Your task to perform on an android device: turn off smart reply in the gmail app Image 0: 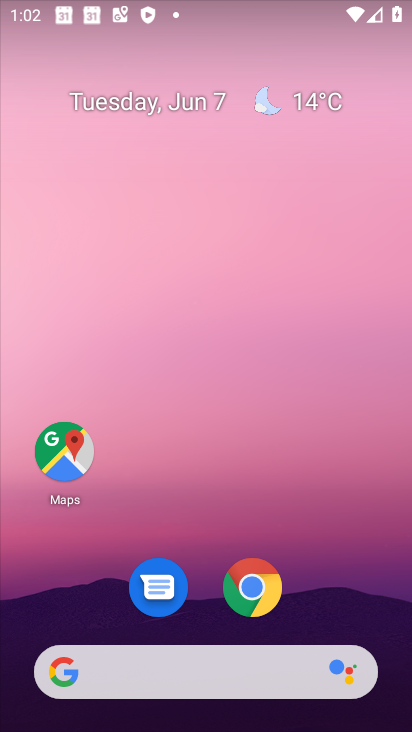
Step 0: drag from (223, 661) to (215, 214)
Your task to perform on an android device: turn off smart reply in the gmail app Image 1: 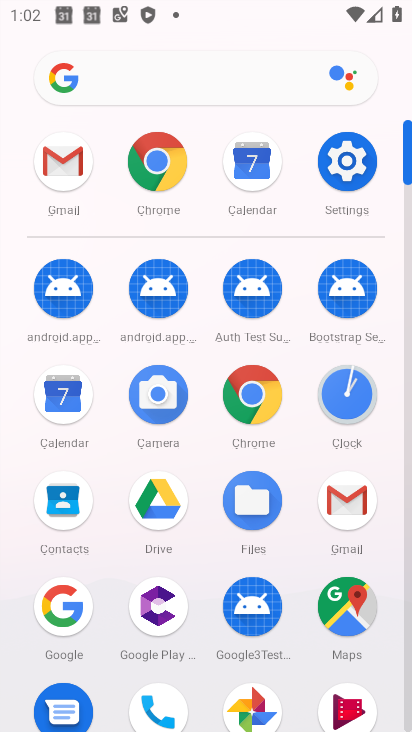
Step 1: click (345, 501)
Your task to perform on an android device: turn off smart reply in the gmail app Image 2: 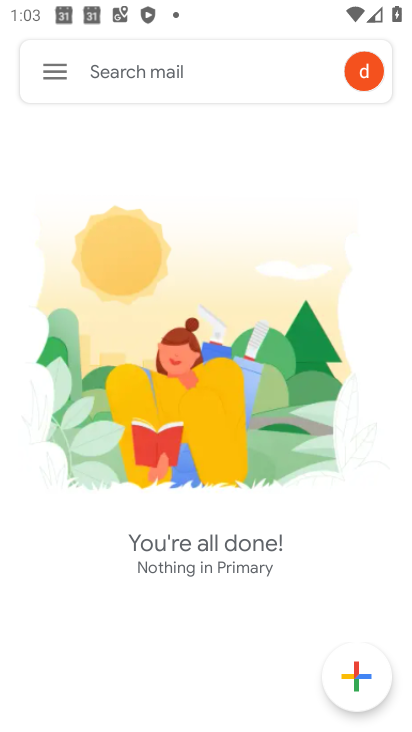
Step 2: click (48, 79)
Your task to perform on an android device: turn off smart reply in the gmail app Image 3: 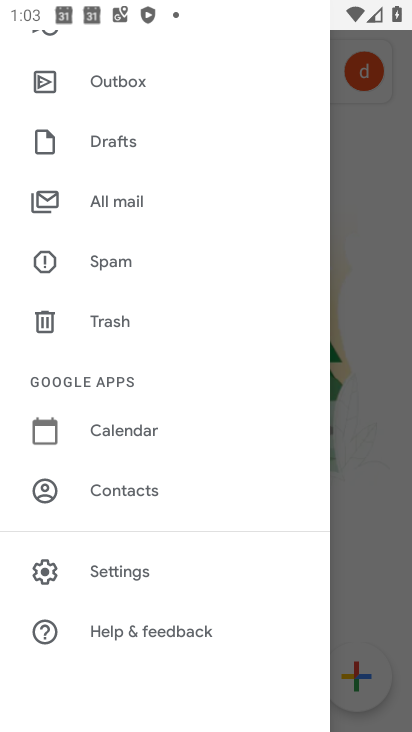
Step 3: click (134, 576)
Your task to perform on an android device: turn off smart reply in the gmail app Image 4: 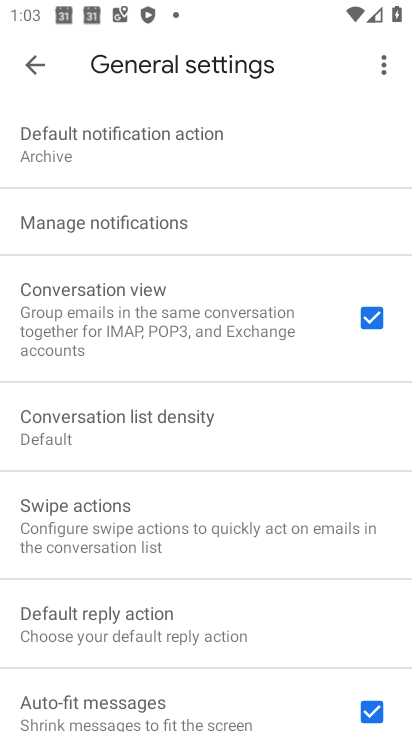
Step 4: click (31, 68)
Your task to perform on an android device: turn off smart reply in the gmail app Image 5: 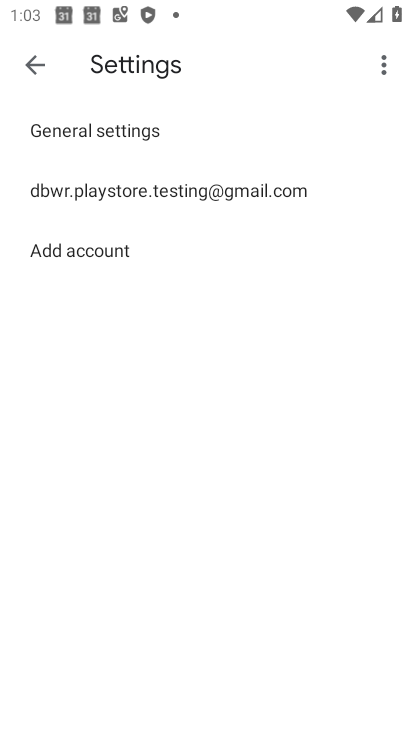
Step 5: click (138, 204)
Your task to perform on an android device: turn off smart reply in the gmail app Image 6: 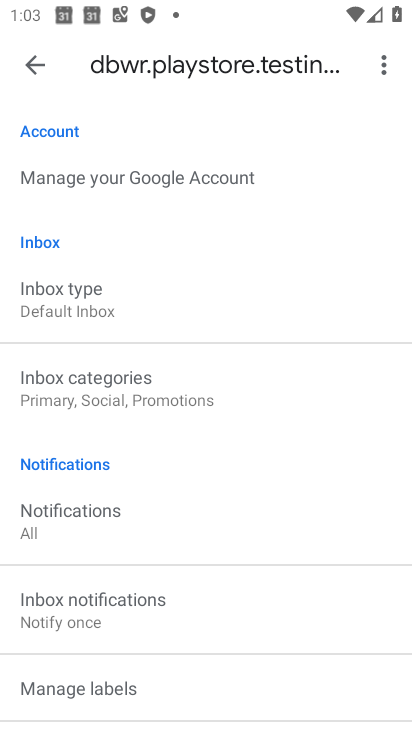
Step 6: drag from (132, 545) to (240, 0)
Your task to perform on an android device: turn off smart reply in the gmail app Image 7: 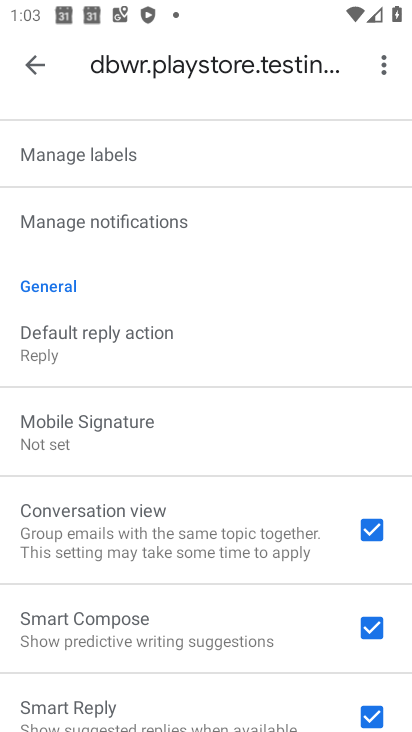
Step 7: drag from (156, 568) to (176, 376)
Your task to perform on an android device: turn off smart reply in the gmail app Image 8: 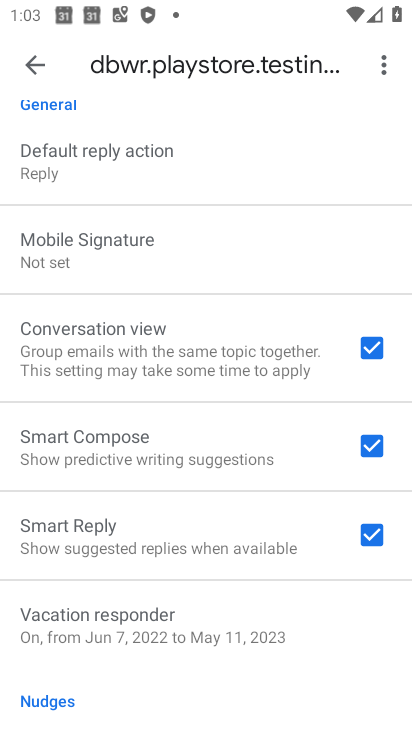
Step 8: click (367, 536)
Your task to perform on an android device: turn off smart reply in the gmail app Image 9: 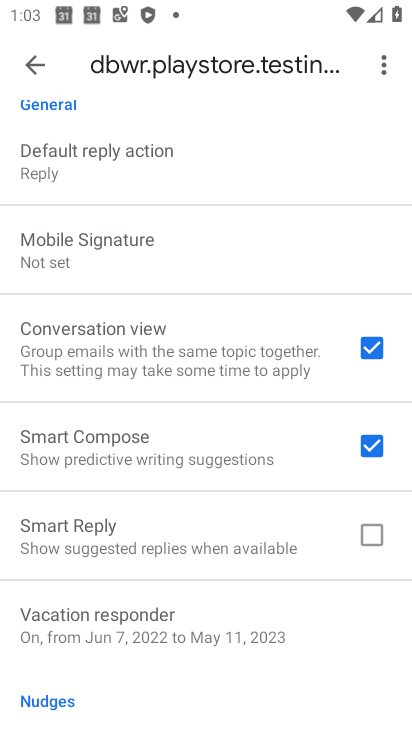
Step 9: task complete